Your task to perform on an android device: refresh tabs in the chrome app Image 0: 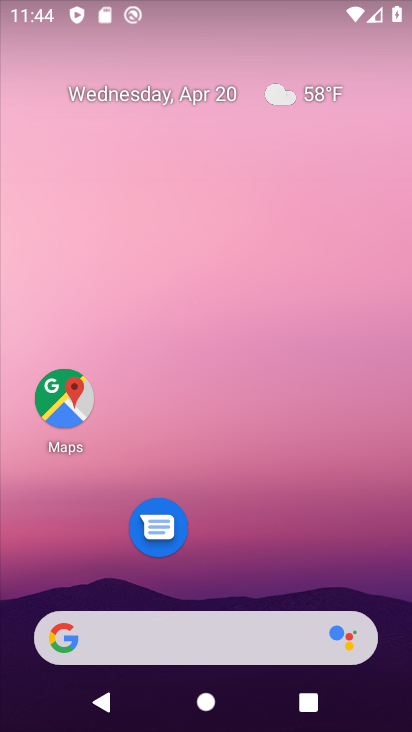
Step 0: drag from (211, 725) to (183, 69)
Your task to perform on an android device: refresh tabs in the chrome app Image 1: 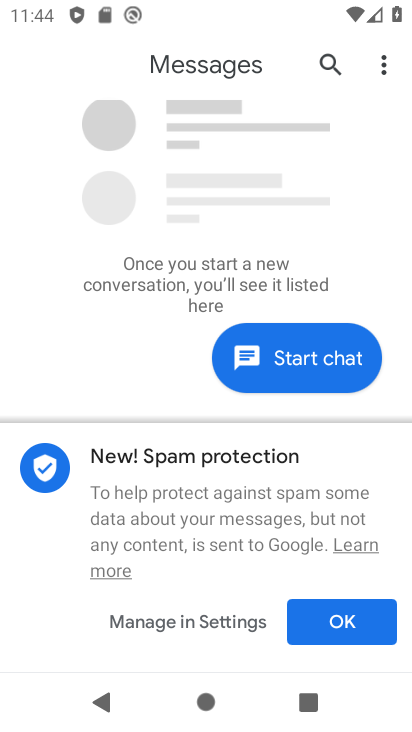
Step 1: press home button
Your task to perform on an android device: refresh tabs in the chrome app Image 2: 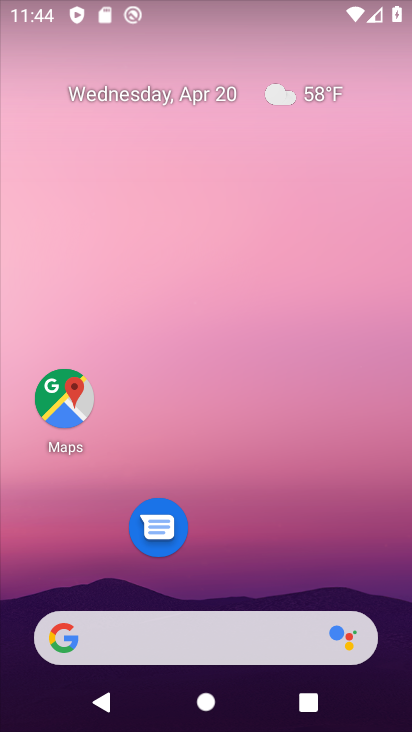
Step 2: drag from (228, 725) to (232, 122)
Your task to perform on an android device: refresh tabs in the chrome app Image 3: 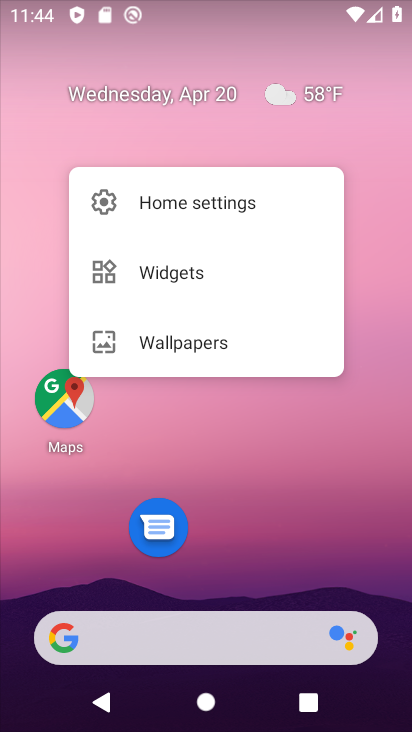
Step 3: click (230, 427)
Your task to perform on an android device: refresh tabs in the chrome app Image 4: 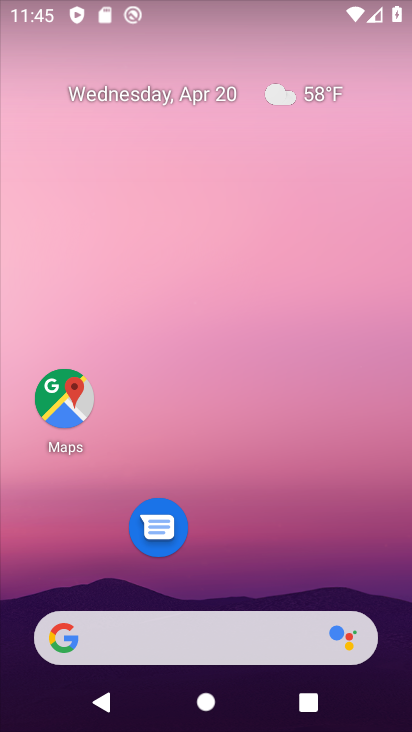
Step 4: drag from (230, 707) to (231, 133)
Your task to perform on an android device: refresh tabs in the chrome app Image 5: 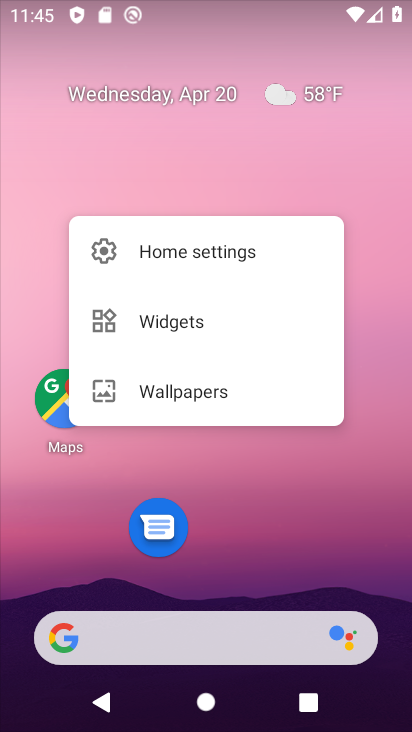
Step 5: click (214, 141)
Your task to perform on an android device: refresh tabs in the chrome app Image 6: 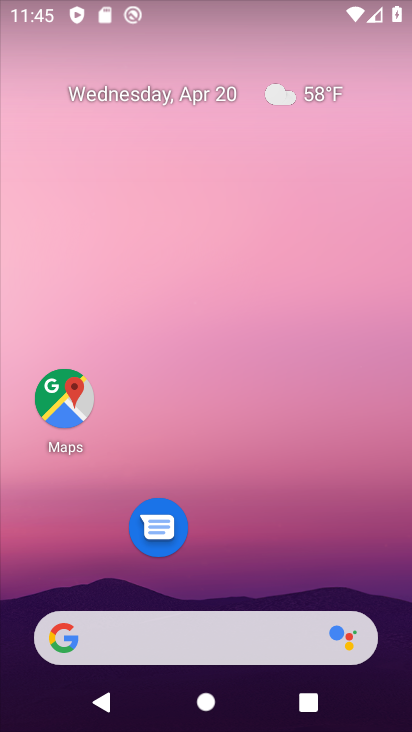
Step 6: drag from (210, 724) to (181, 65)
Your task to perform on an android device: refresh tabs in the chrome app Image 7: 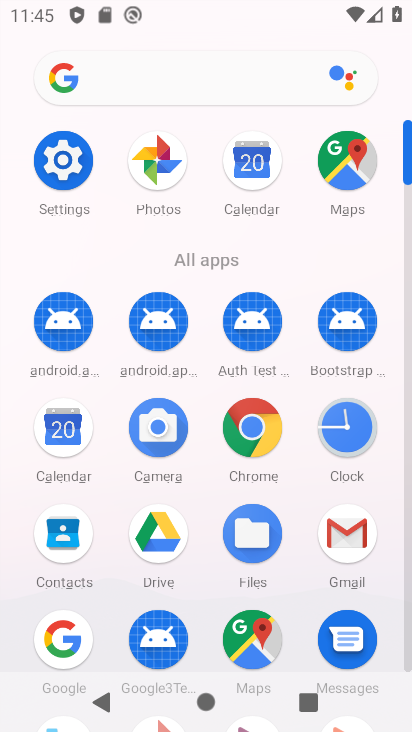
Step 7: click (252, 422)
Your task to perform on an android device: refresh tabs in the chrome app Image 8: 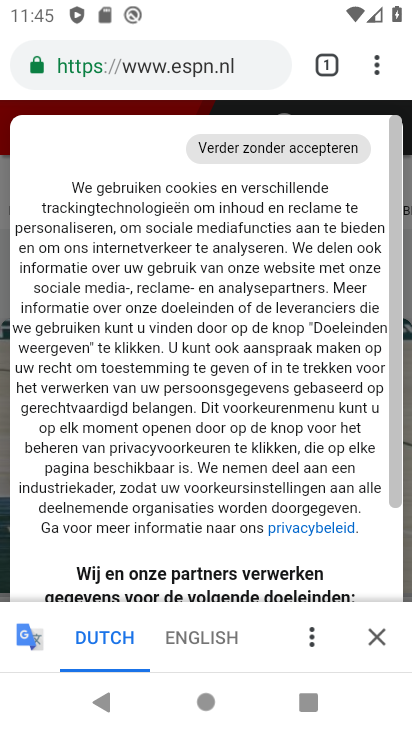
Step 8: click (378, 69)
Your task to perform on an android device: refresh tabs in the chrome app Image 9: 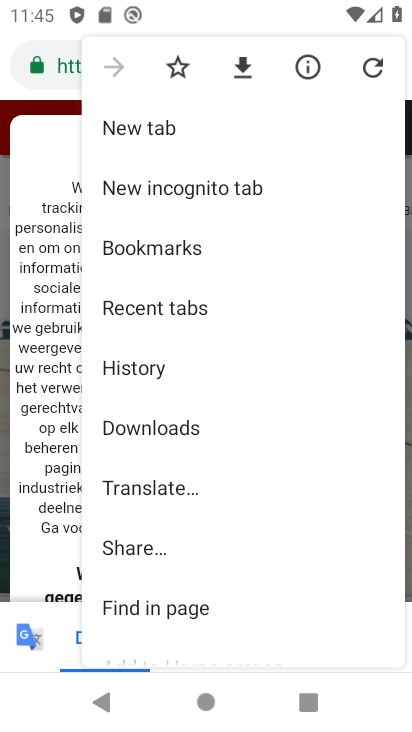
Step 9: click (372, 65)
Your task to perform on an android device: refresh tabs in the chrome app Image 10: 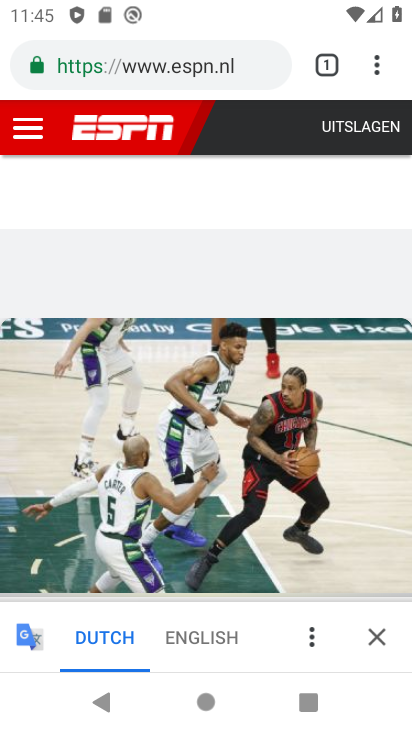
Step 10: task complete